Your task to perform on an android device: Open the calendar and show me this week's events? Image 0: 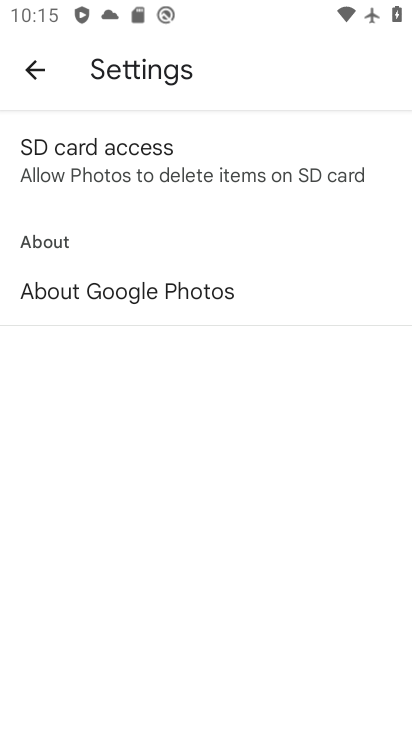
Step 0: press home button
Your task to perform on an android device: Open the calendar and show me this week's events? Image 1: 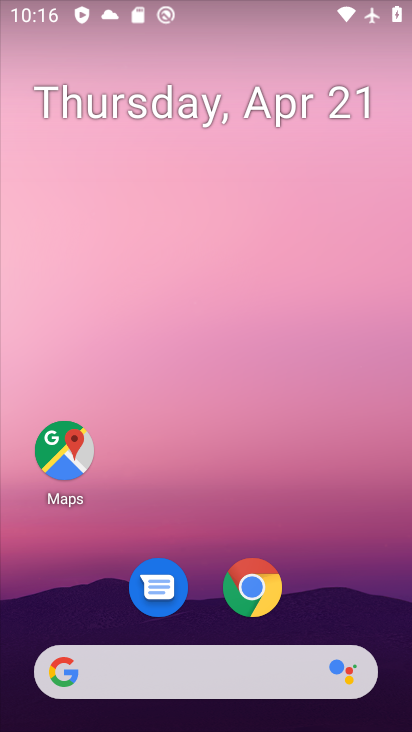
Step 1: drag from (341, 409) to (341, 113)
Your task to perform on an android device: Open the calendar and show me this week's events? Image 2: 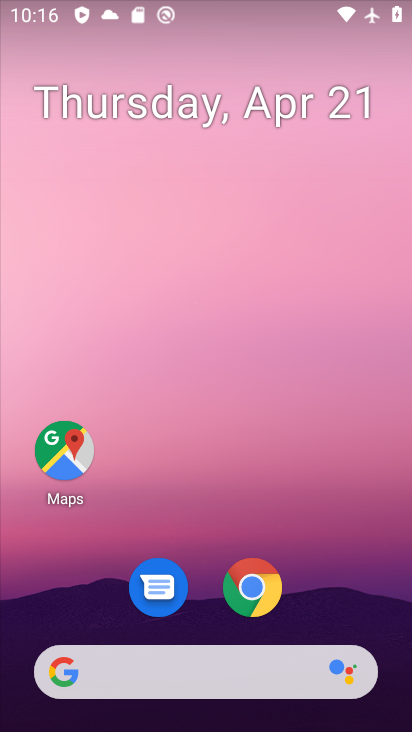
Step 2: drag from (358, 443) to (395, 418)
Your task to perform on an android device: Open the calendar and show me this week's events? Image 3: 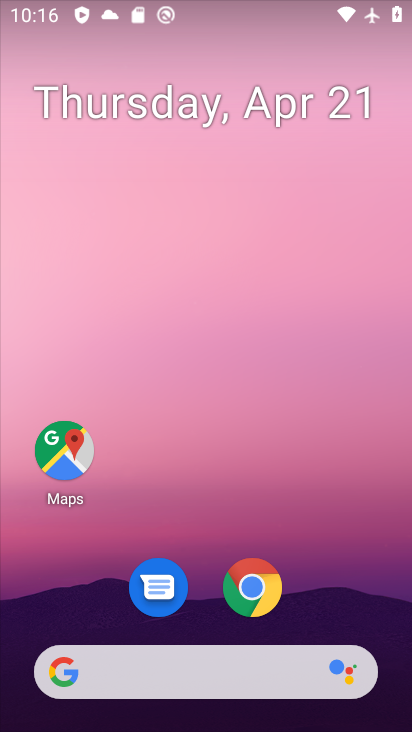
Step 3: click (74, 565)
Your task to perform on an android device: Open the calendar and show me this week's events? Image 4: 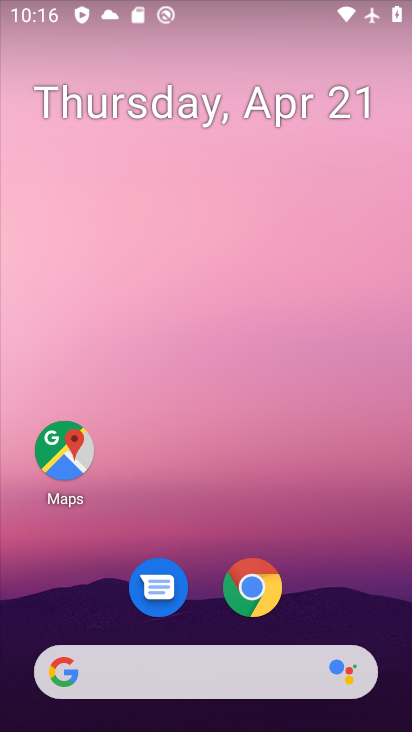
Step 4: drag from (341, 572) to (351, 80)
Your task to perform on an android device: Open the calendar and show me this week's events? Image 5: 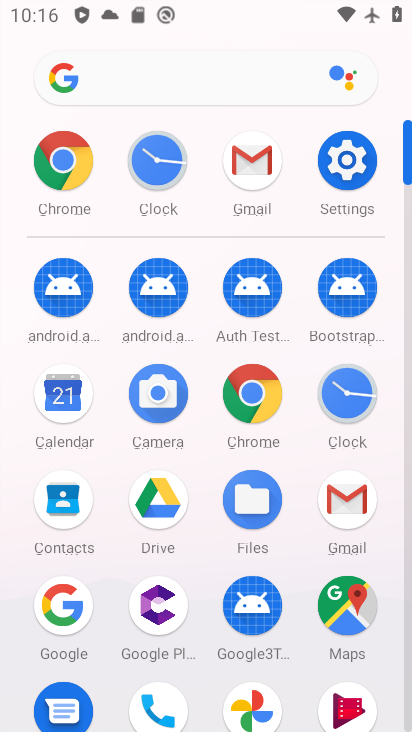
Step 5: click (62, 392)
Your task to perform on an android device: Open the calendar and show me this week's events? Image 6: 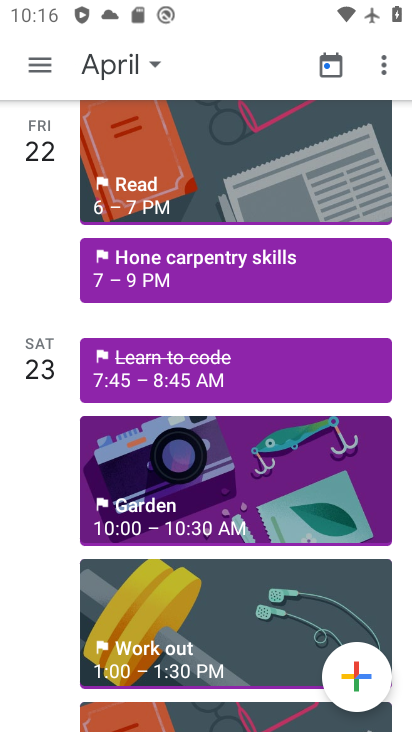
Step 6: task complete